Your task to perform on an android device: Open my contact list Image 0: 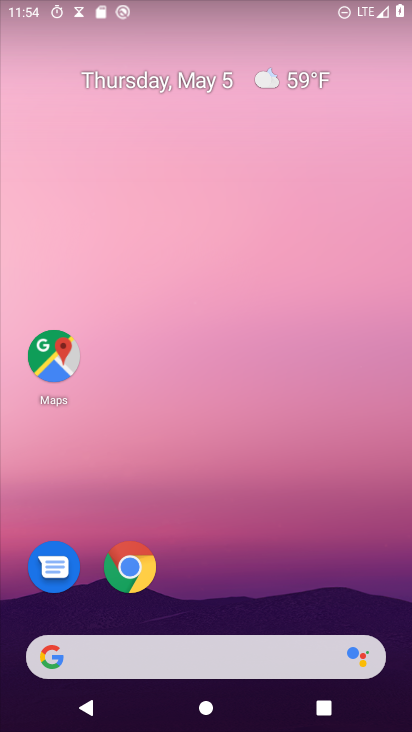
Step 0: press home button
Your task to perform on an android device: Open my contact list Image 1: 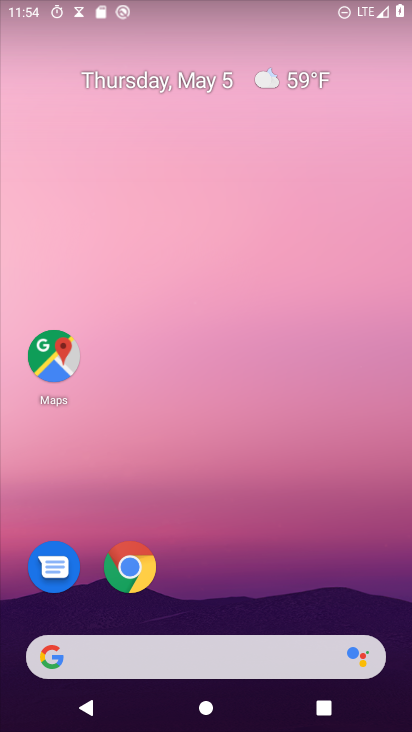
Step 1: drag from (278, 606) to (281, 11)
Your task to perform on an android device: Open my contact list Image 2: 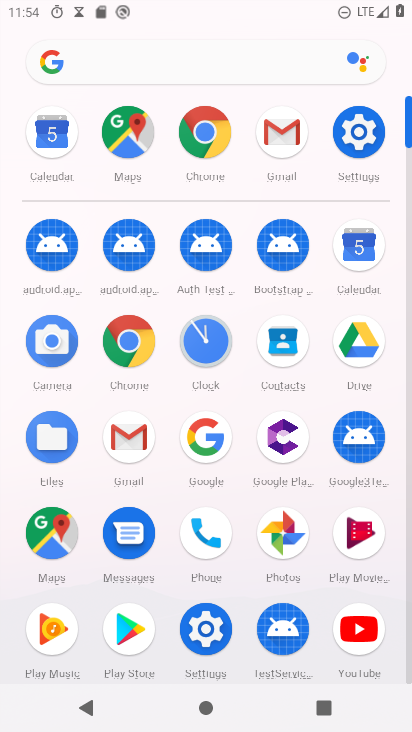
Step 2: click (288, 345)
Your task to perform on an android device: Open my contact list Image 3: 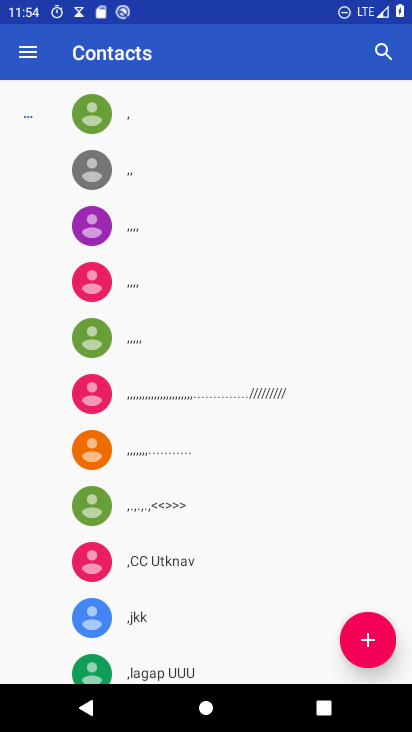
Step 3: task complete